Your task to perform on an android device: turn off picture-in-picture Image 0: 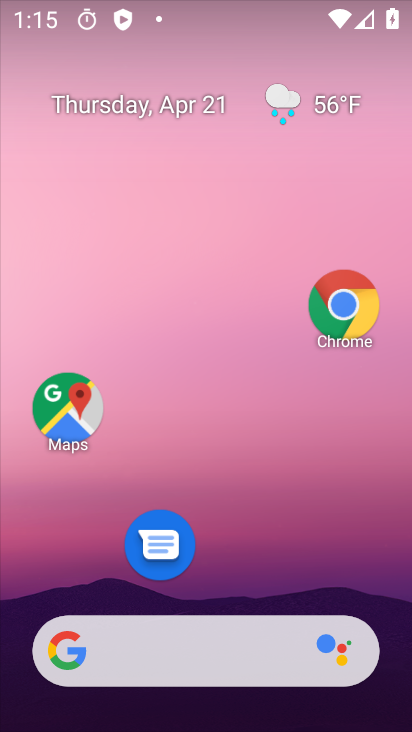
Step 0: click (342, 304)
Your task to perform on an android device: turn off picture-in-picture Image 1: 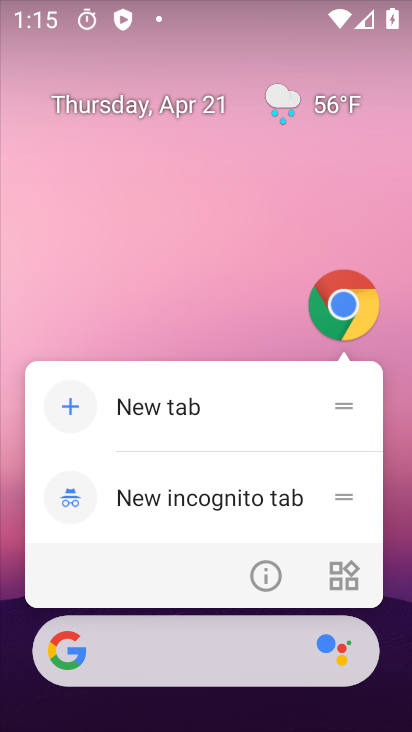
Step 1: click (272, 576)
Your task to perform on an android device: turn off picture-in-picture Image 2: 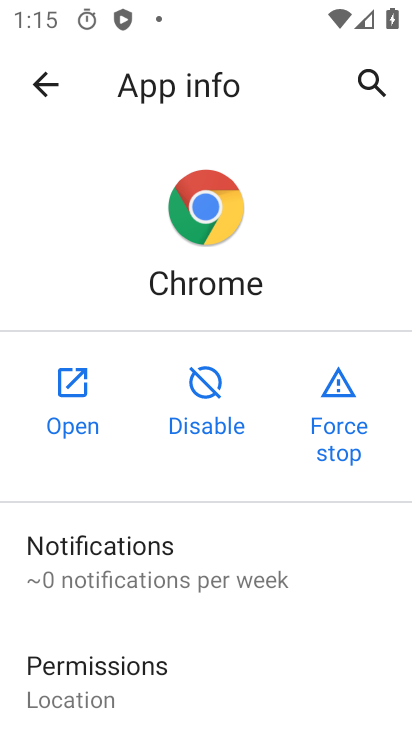
Step 2: drag from (182, 644) to (282, 255)
Your task to perform on an android device: turn off picture-in-picture Image 3: 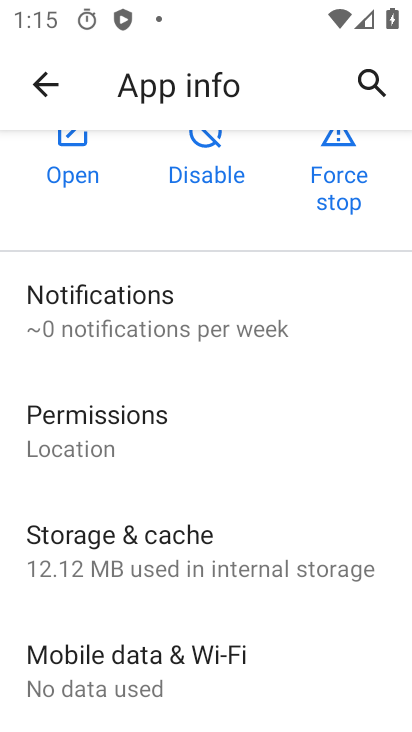
Step 3: drag from (162, 652) to (233, 255)
Your task to perform on an android device: turn off picture-in-picture Image 4: 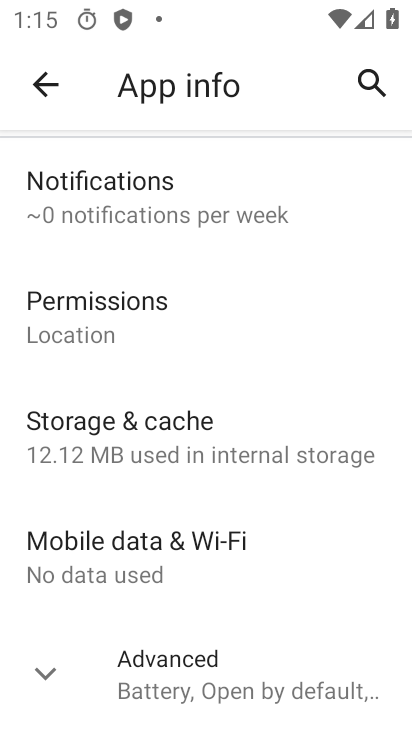
Step 4: click (62, 671)
Your task to perform on an android device: turn off picture-in-picture Image 5: 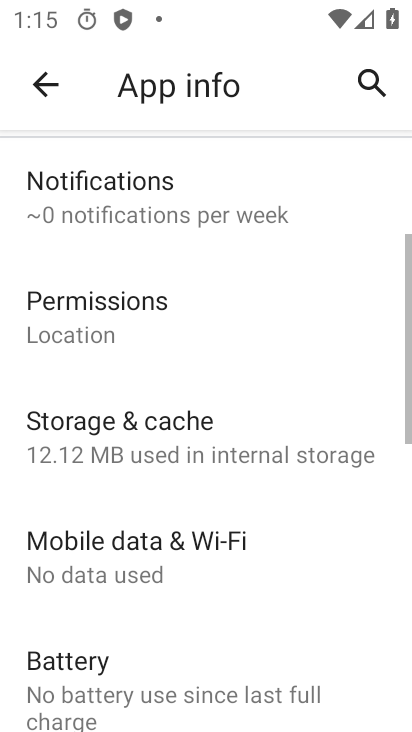
Step 5: drag from (94, 625) to (150, 239)
Your task to perform on an android device: turn off picture-in-picture Image 6: 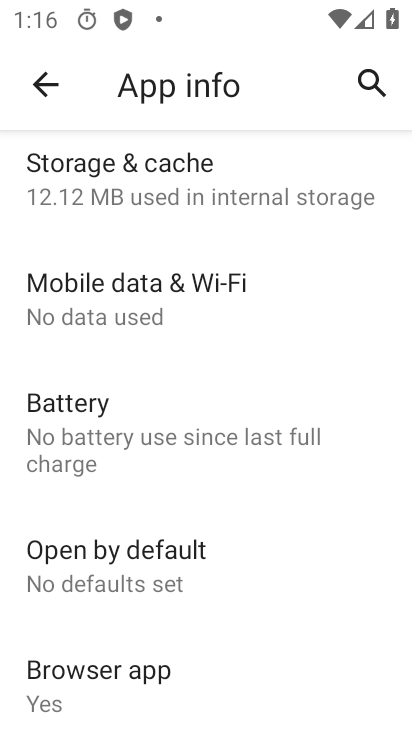
Step 6: drag from (120, 641) to (218, 205)
Your task to perform on an android device: turn off picture-in-picture Image 7: 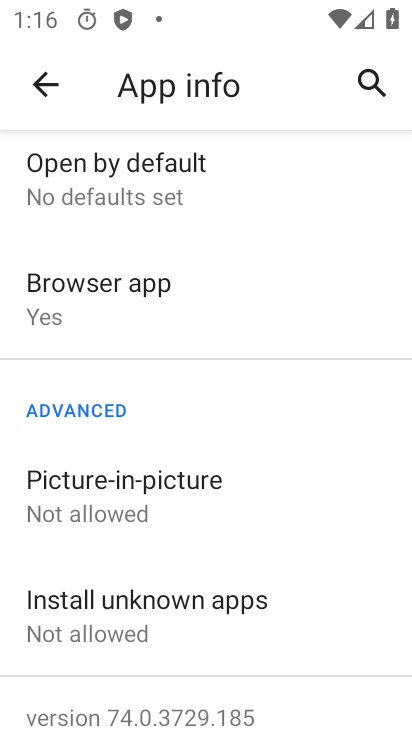
Step 7: click (136, 482)
Your task to perform on an android device: turn off picture-in-picture Image 8: 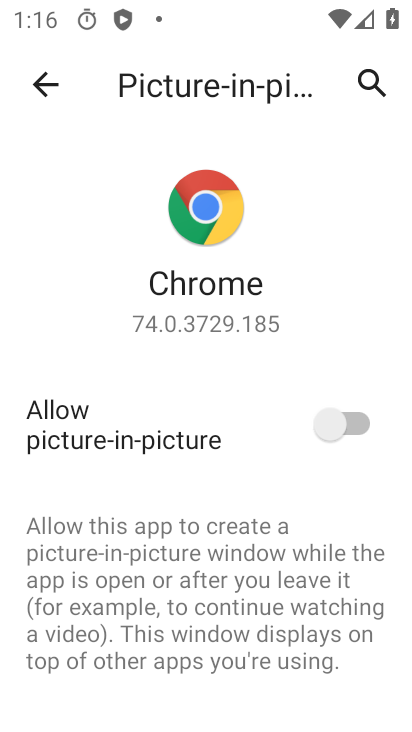
Step 8: task complete